Your task to perform on an android device: change keyboard looks Image 0: 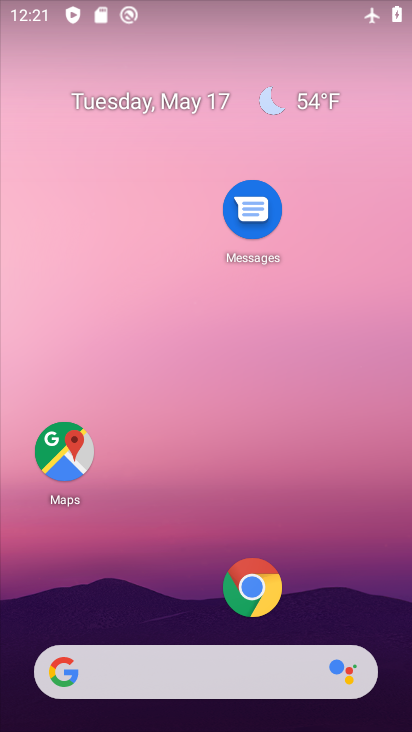
Step 0: drag from (159, 586) to (241, 43)
Your task to perform on an android device: change keyboard looks Image 1: 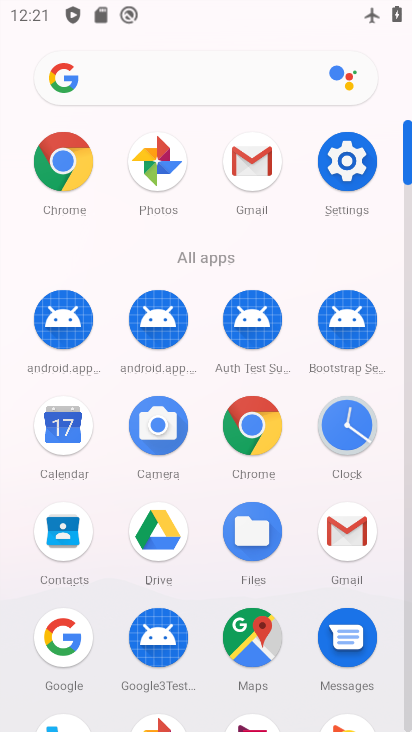
Step 1: click (342, 172)
Your task to perform on an android device: change keyboard looks Image 2: 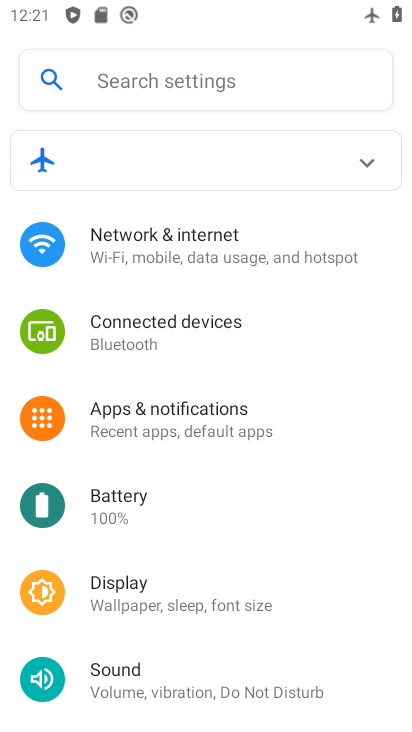
Step 2: drag from (163, 499) to (268, 92)
Your task to perform on an android device: change keyboard looks Image 3: 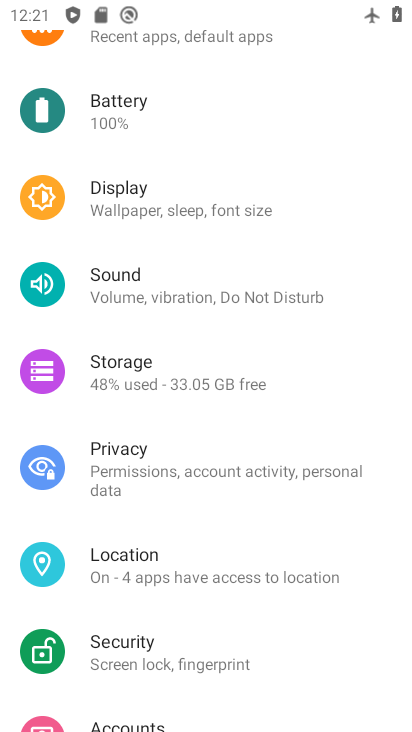
Step 3: drag from (170, 459) to (254, 40)
Your task to perform on an android device: change keyboard looks Image 4: 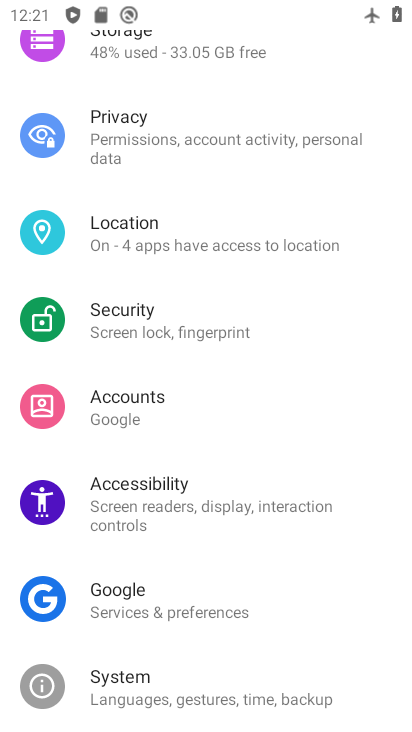
Step 4: drag from (144, 629) to (206, 334)
Your task to perform on an android device: change keyboard looks Image 5: 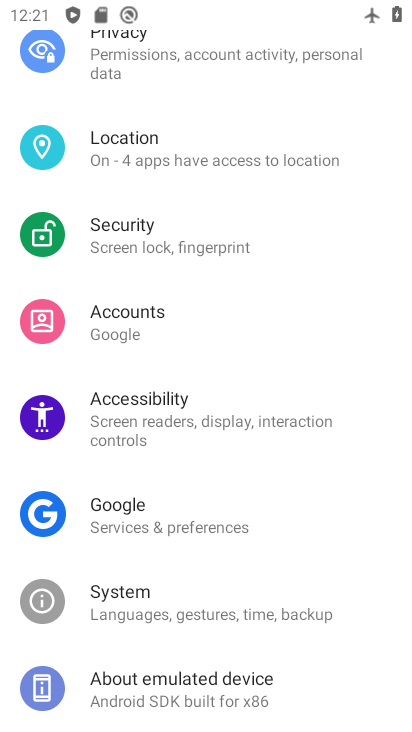
Step 5: click (165, 593)
Your task to perform on an android device: change keyboard looks Image 6: 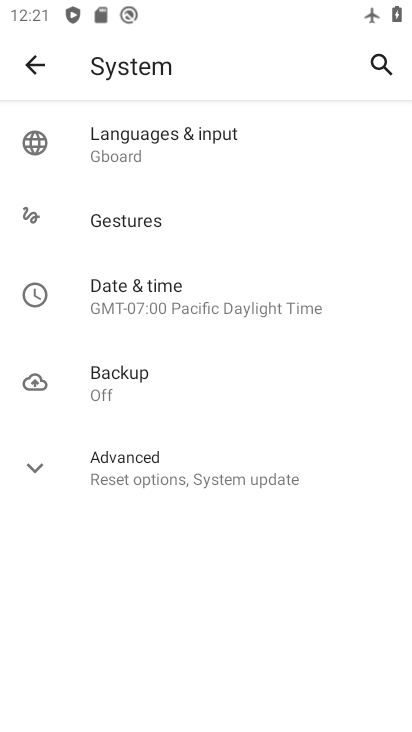
Step 6: click (152, 147)
Your task to perform on an android device: change keyboard looks Image 7: 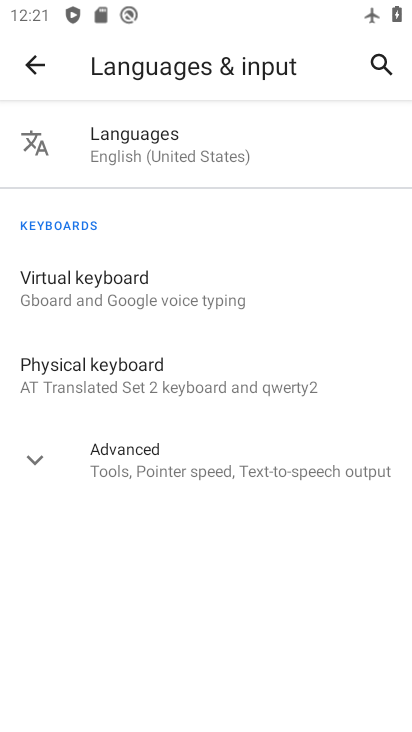
Step 7: click (142, 291)
Your task to perform on an android device: change keyboard looks Image 8: 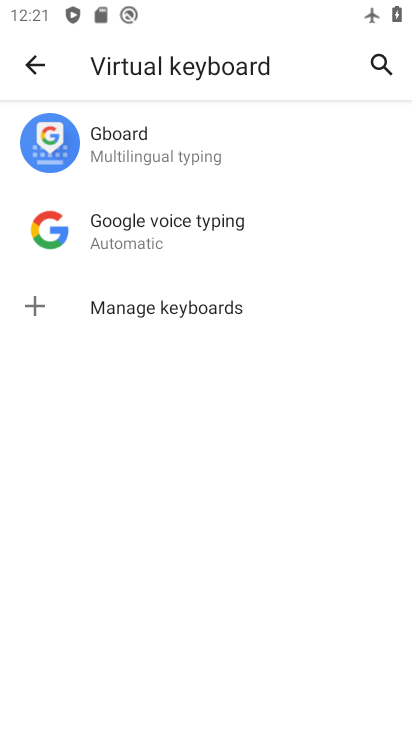
Step 8: click (157, 154)
Your task to perform on an android device: change keyboard looks Image 9: 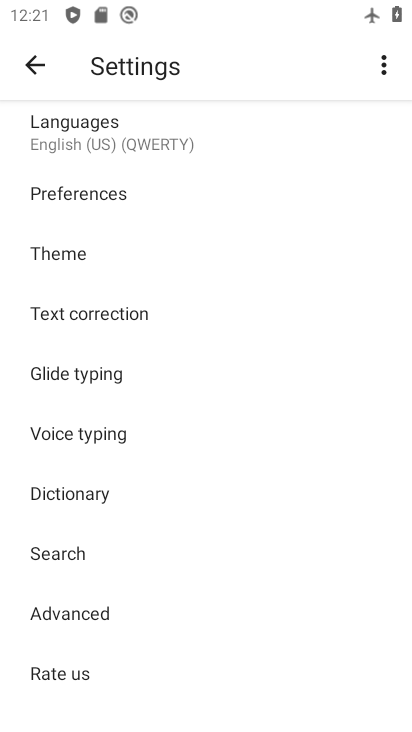
Step 9: click (103, 247)
Your task to perform on an android device: change keyboard looks Image 10: 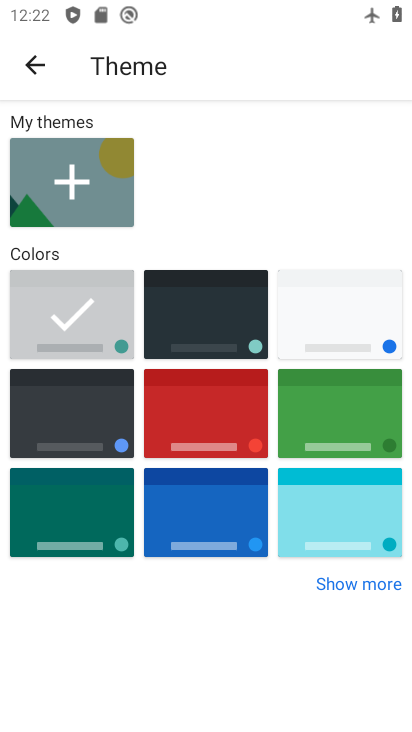
Step 10: click (253, 303)
Your task to perform on an android device: change keyboard looks Image 11: 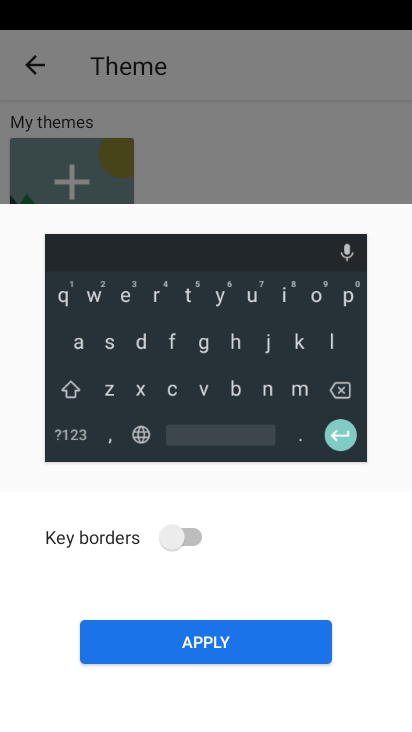
Step 11: click (204, 639)
Your task to perform on an android device: change keyboard looks Image 12: 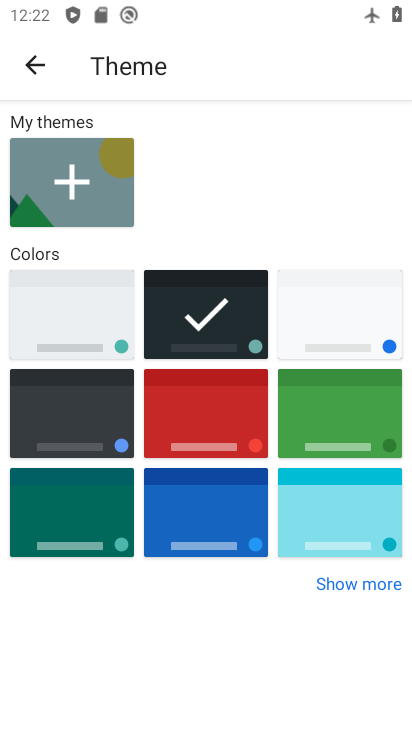
Step 12: task complete